Your task to perform on an android device: Find coffee shops on Maps Image 0: 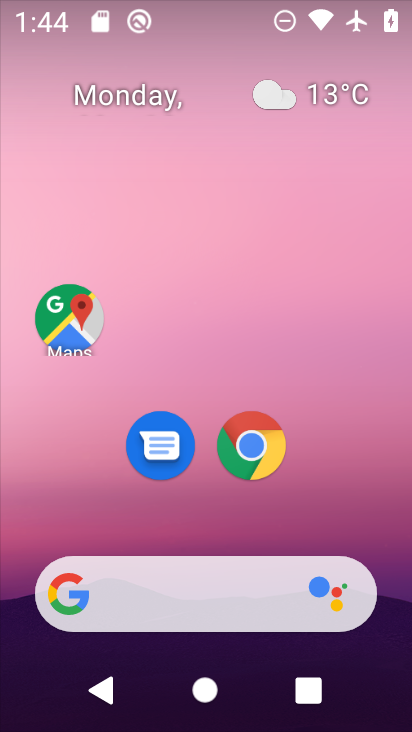
Step 0: drag from (394, 626) to (324, 0)
Your task to perform on an android device: Find coffee shops on Maps Image 1: 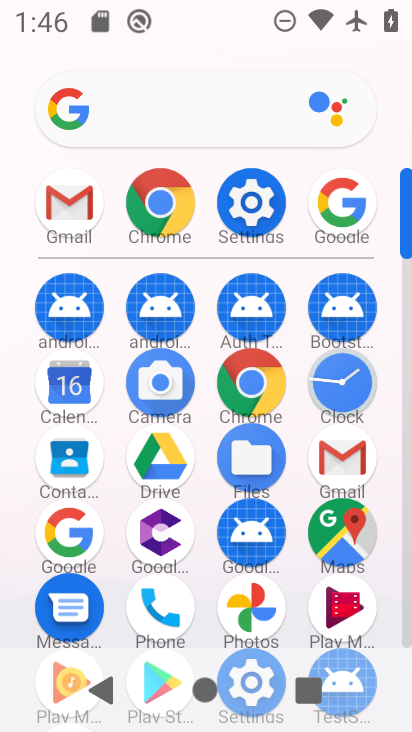
Step 1: click (351, 532)
Your task to perform on an android device: Find coffee shops on Maps Image 2: 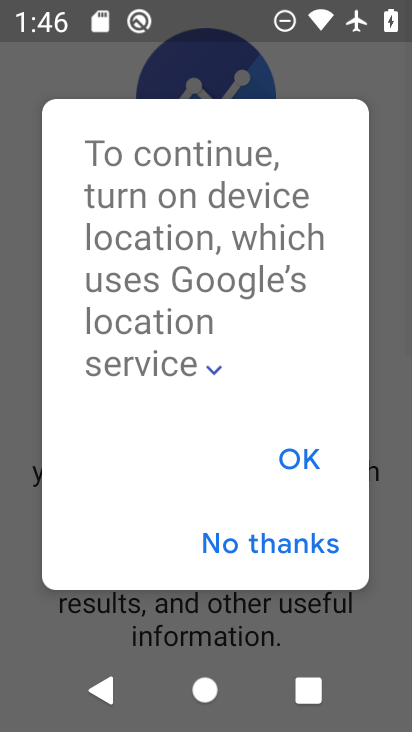
Step 2: press back button
Your task to perform on an android device: Find coffee shops on Maps Image 3: 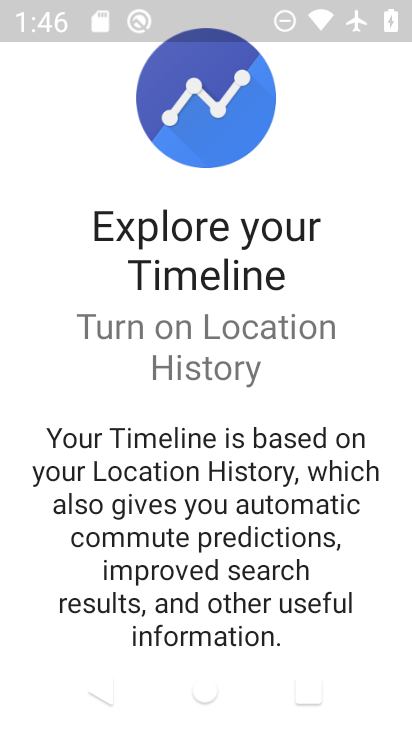
Step 3: press back button
Your task to perform on an android device: Find coffee shops on Maps Image 4: 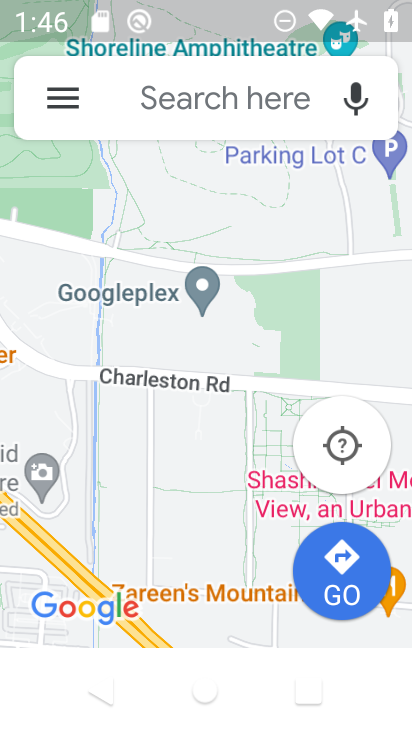
Step 4: click (219, 95)
Your task to perform on an android device: Find coffee shops on Maps Image 5: 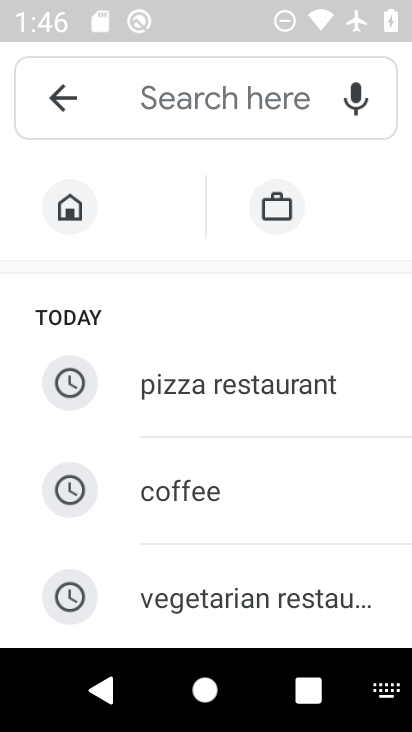
Step 5: click (258, 493)
Your task to perform on an android device: Find coffee shops on Maps Image 6: 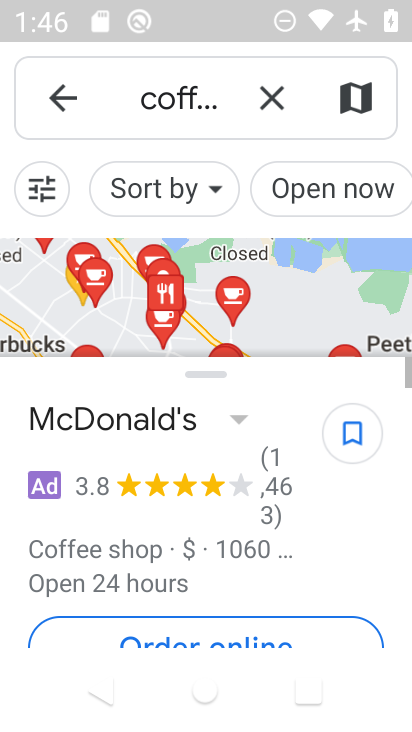
Step 6: task complete